Your task to perform on an android device: Open notification settings Image 0: 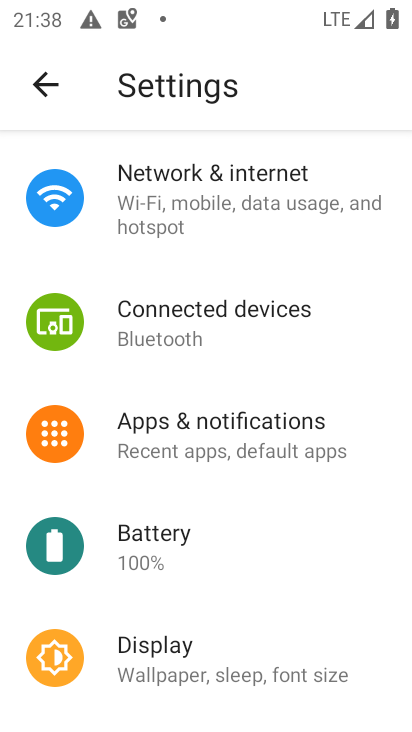
Step 0: click (211, 449)
Your task to perform on an android device: Open notification settings Image 1: 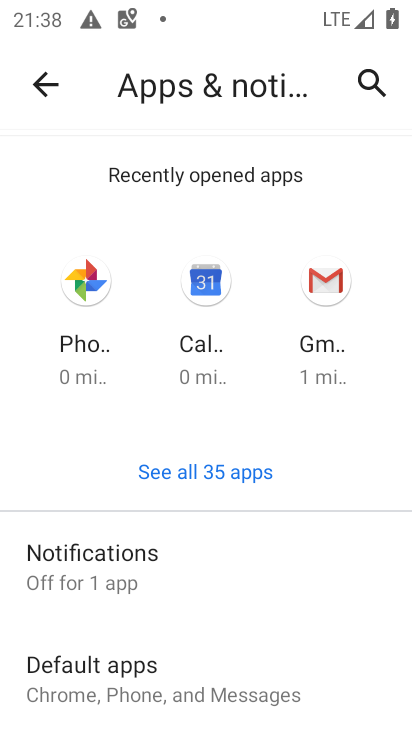
Step 1: click (120, 564)
Your task to perform on an android device: Open notification settings Image 2: 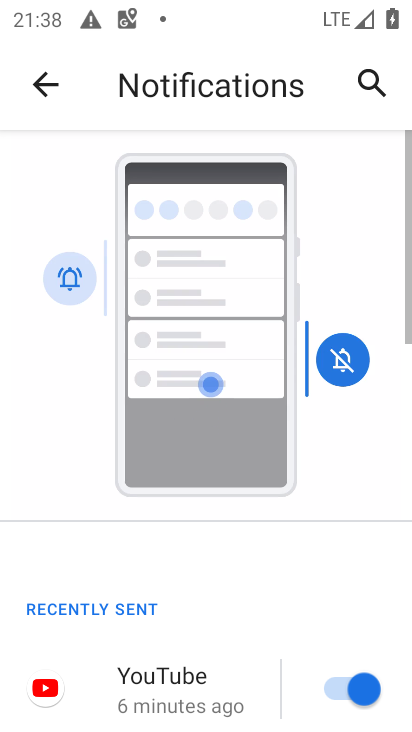
Step 2: task complete